Your task to perform on an android device: Go to notification settings Image 0: 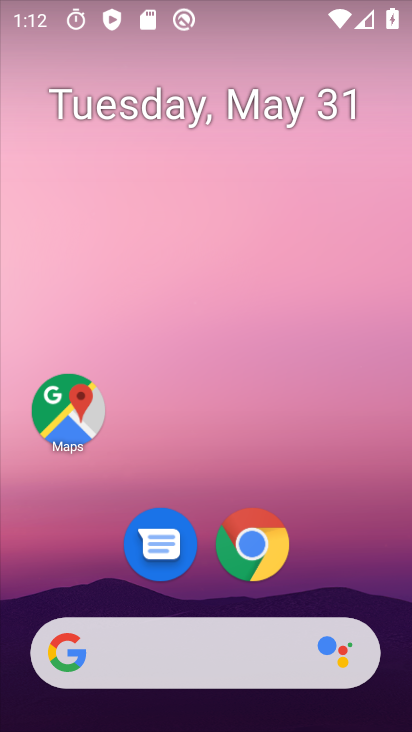
Step 0: drag from (214, 554) to (210, 63)
Your task to perform on an android device: Go to notification settings Image 1: 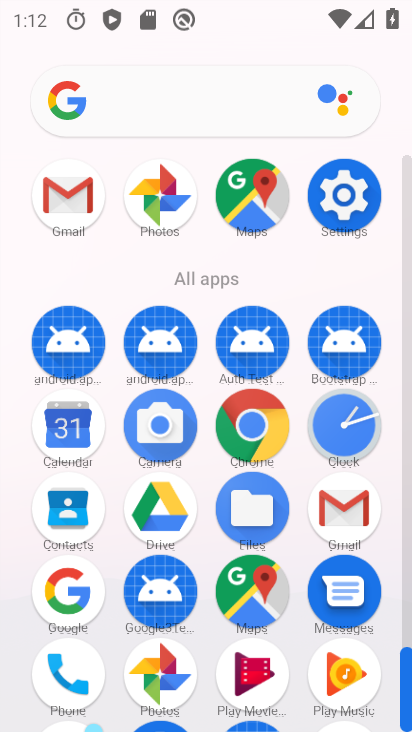
Step 1: click (350, 196)
Your task to perform on an android device: Go to notification settings Image 2: 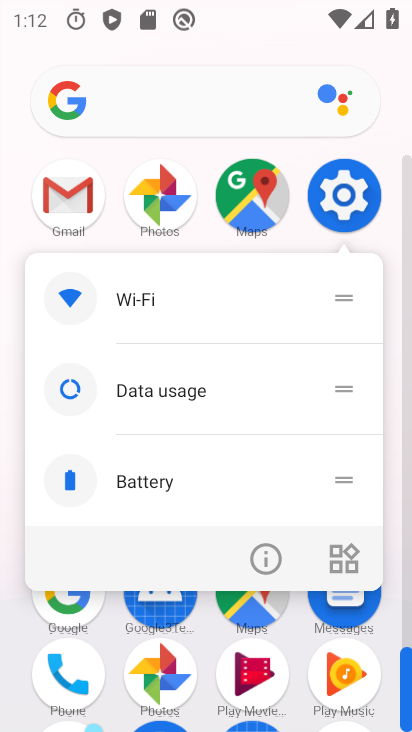
Step 2: click (351, 201)
Your task to perform on an android device: Go to notification settings Image 3: 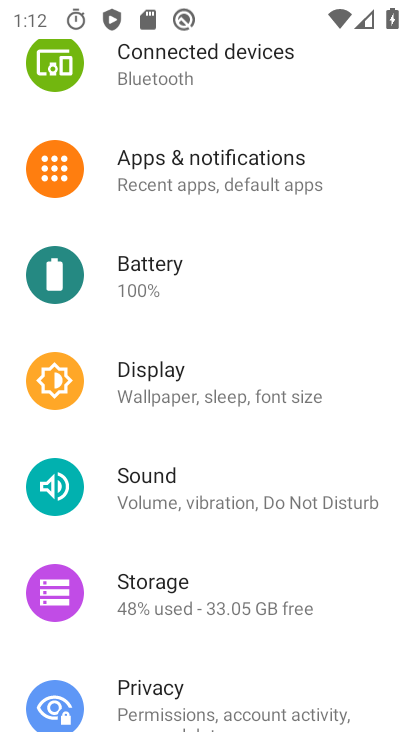
Step 3: click (206, 167)
Your task to perform on an android device: Go to notification settings Image 4: 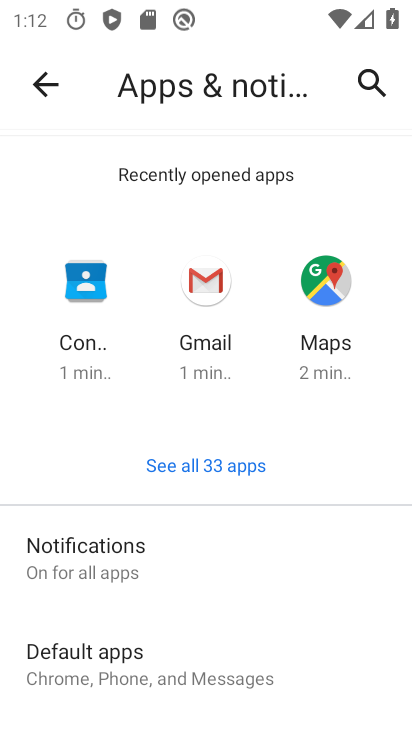
Step 4: click (103, 560)
Your task to perform on an android device: Go to notification settings Image 5: 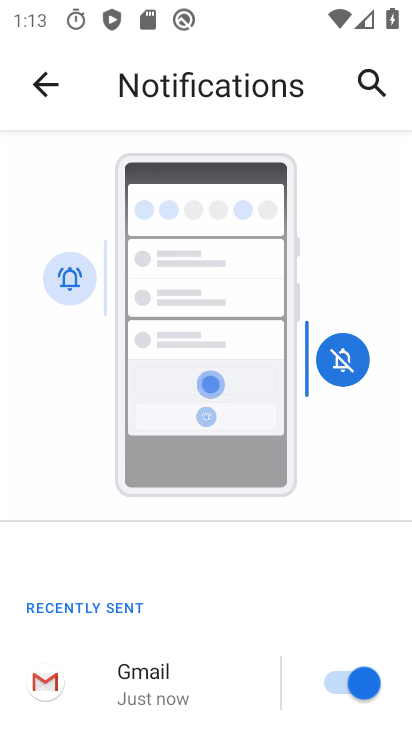
Step 5: task complete